Your task to perform on an android device: Open Android settings Image 0: 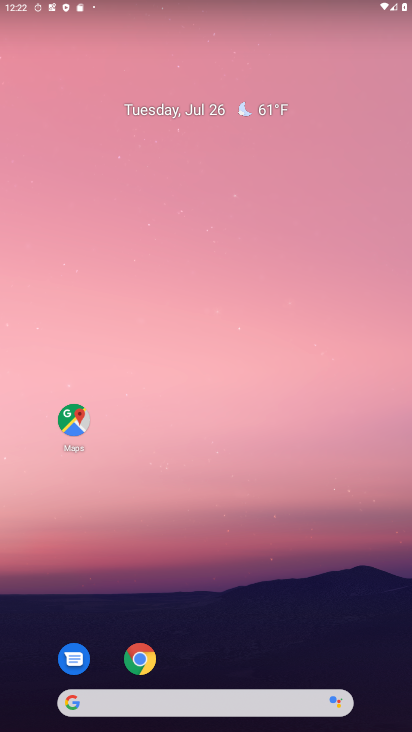
Step 0: drag from (23, 690) to (203, 64)
Your task to perform on an android device: Open Android settings Image 1: 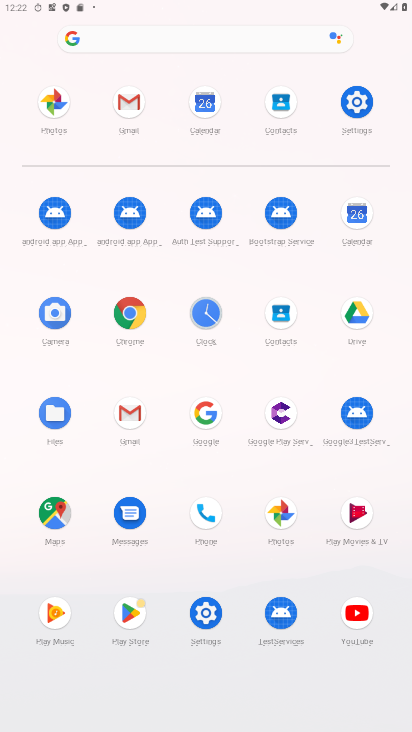
Step 1: click (207, 620)
Your task to perform on an android device: Open Android settings Image 2: 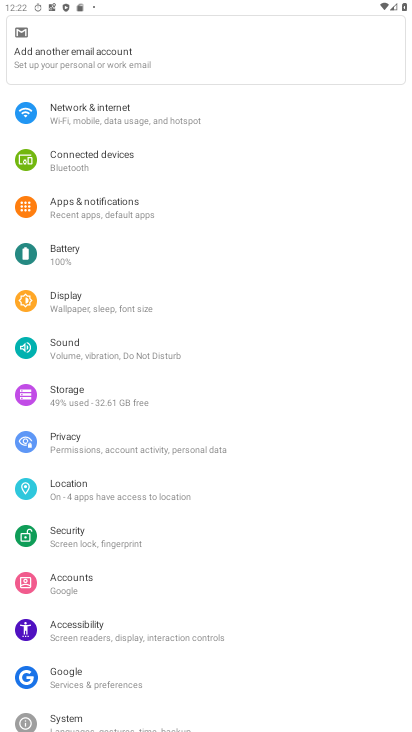
Step 2: drag from (203, 676) to (240, 268)
Your task to perform on an android device: Open Android settings Image 3: 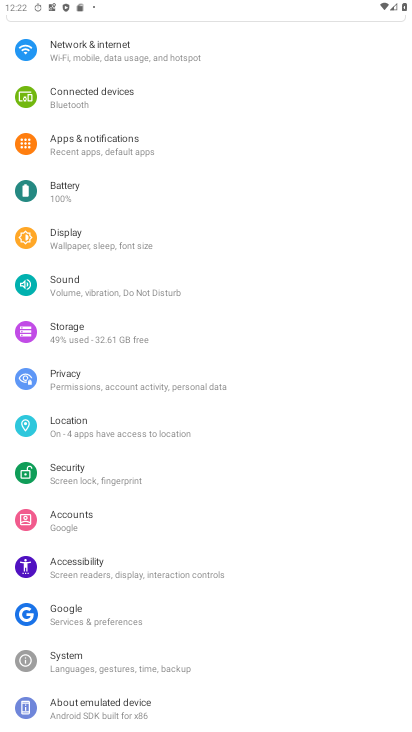
Step 3: click (75, 709)
Your task to perform on an android device: Open Android settings Image 4: 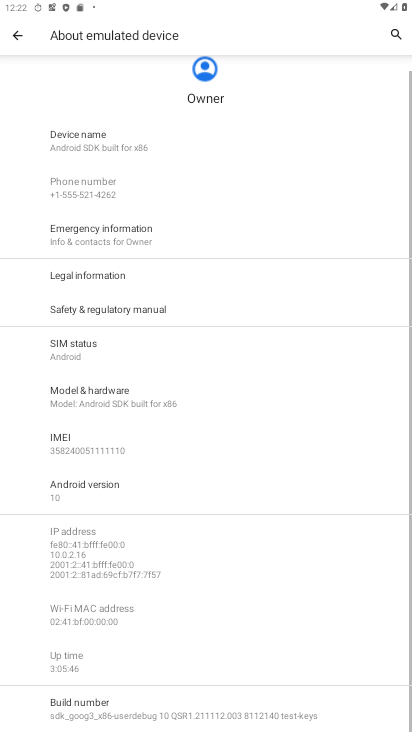
Step 4: click (81, 504)
Your task to perform on an android device: Open Android settings Image 5: 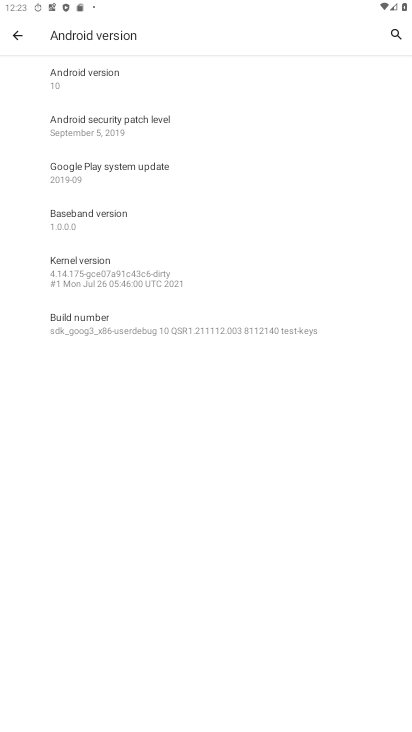
Step 5: task complete